Your task to perform on an android device: uninstall "Google Photos" Image 0: 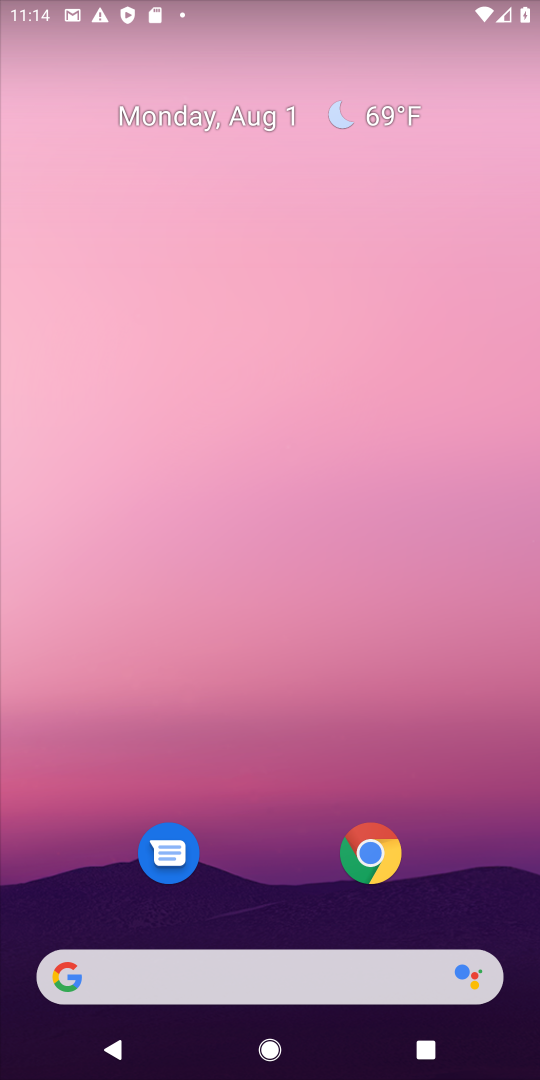
Step 0: press home button
Your task to perform on an android device: uninstall "Google Photos" Image 1: 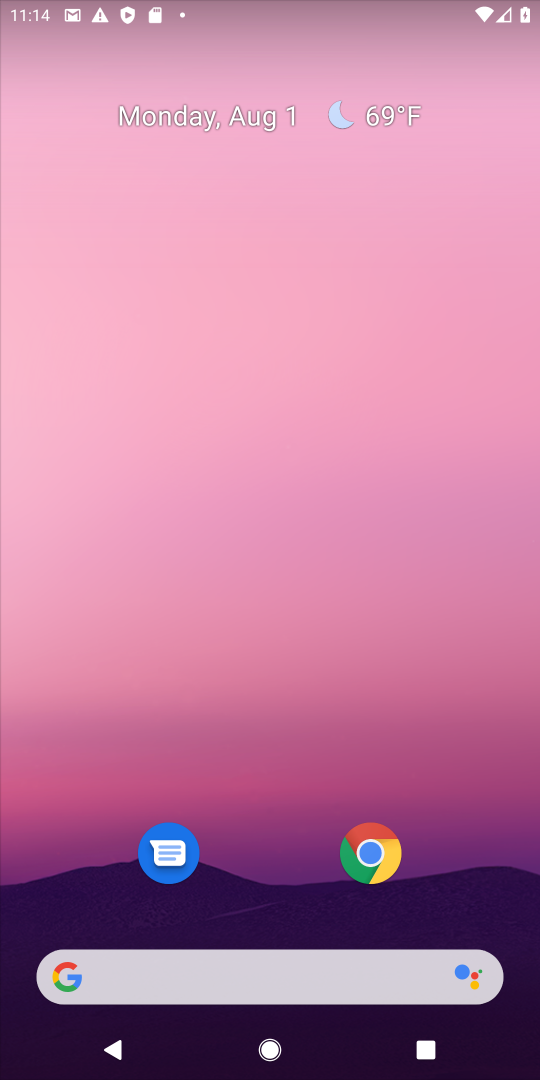
Step 1: drag from (365, 719) to (405, 76)
Your task to perform on an android device: uninstall "Google Photos" Image 2: 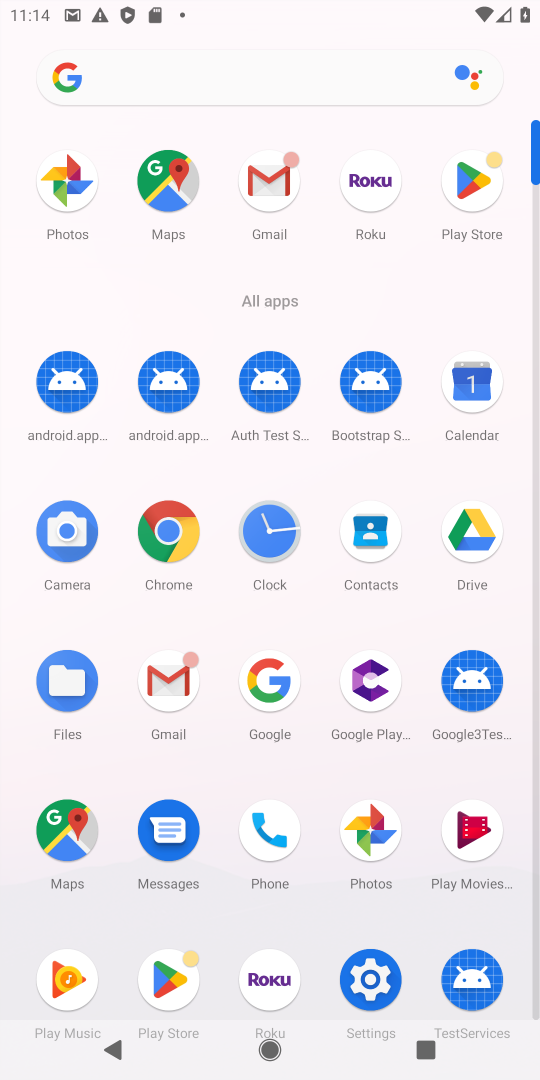
Step 2: click (456, 182)
Your task to perform on an android device: uninstall "Google Photos" Image 3: 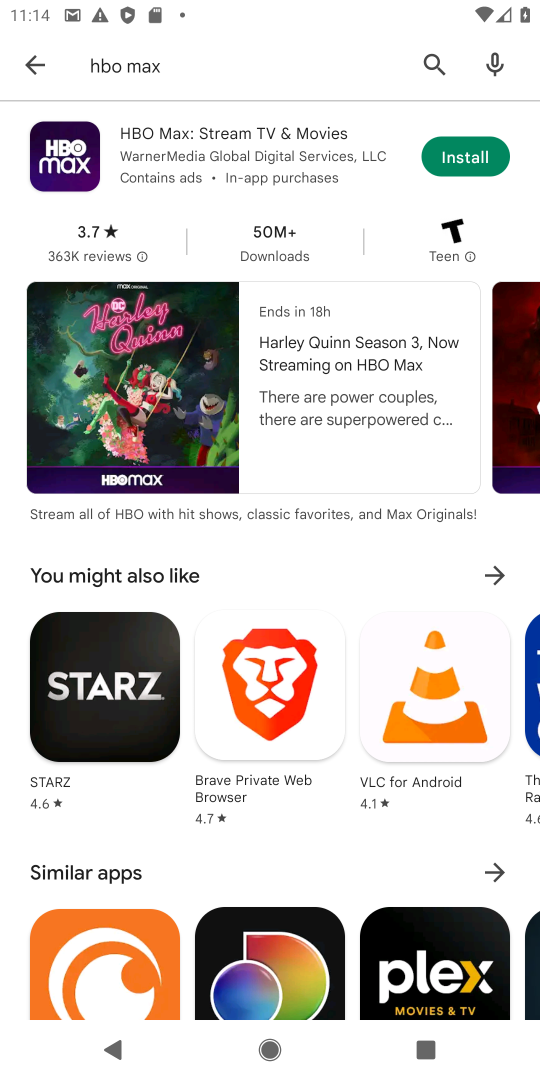
Step 3: click (417, 58)
Your task to perform on an android device: uninstall "Google Photos" Image 4: 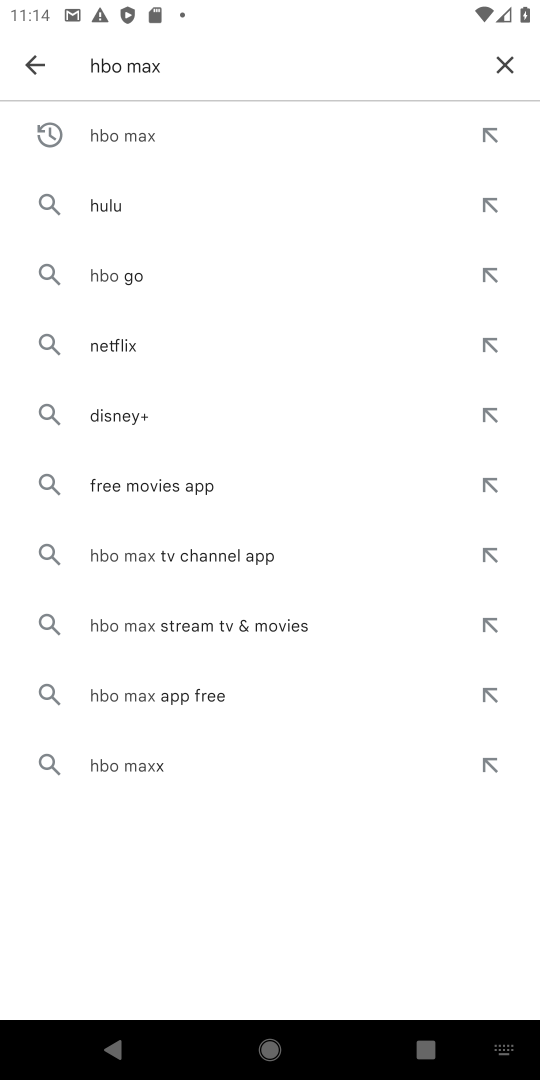
Step 4: click (490, 68)
Your task to perform on an android device: uninstall "Google Photos" Image 5: 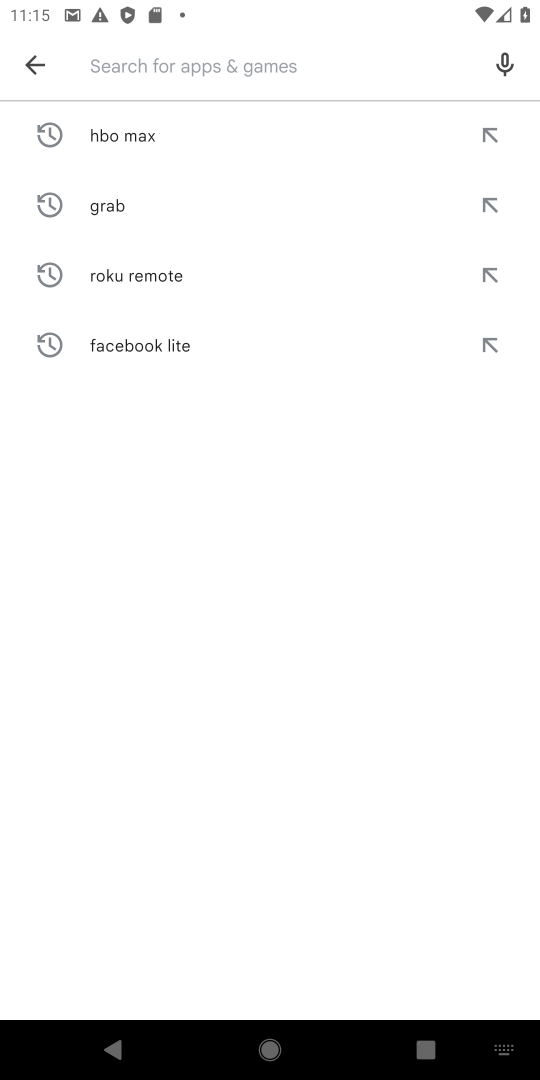
Step 5: type "Google Photos""
Your task to perform on an android device: uninstall "Google Photos" Image 6: 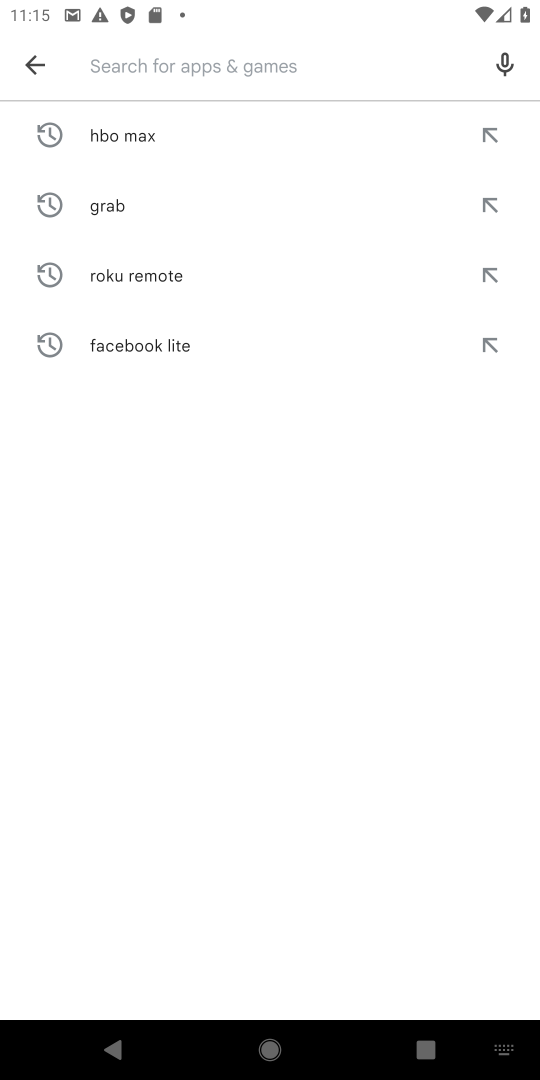
Step 6: type "google photos"
Your task to perform on an android device: uninstall "Google Photos" Image 7: 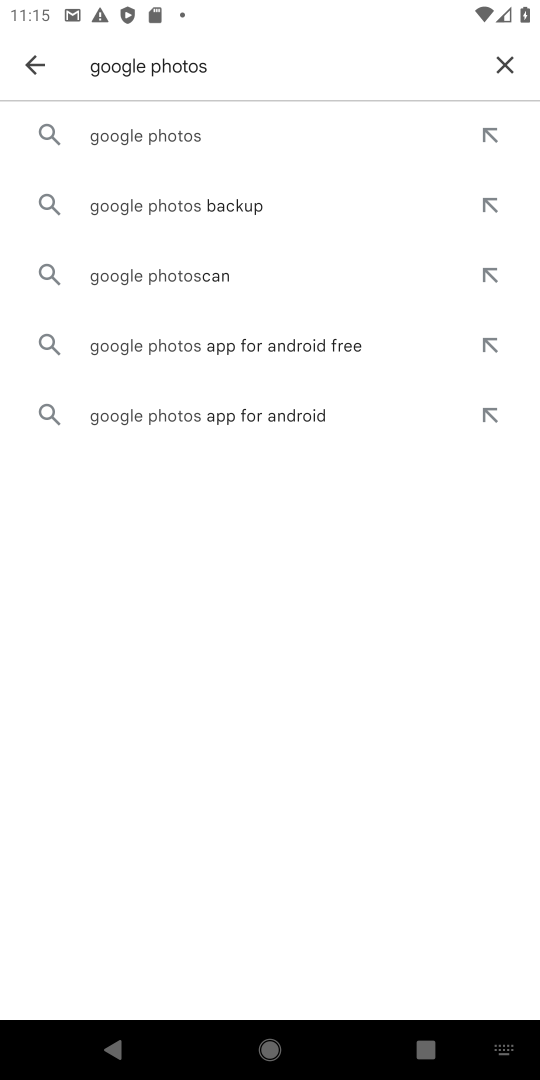
Step 7: click (123, 121)
Your task to perform on an android device: uninstall "Google Photos" Image 8: 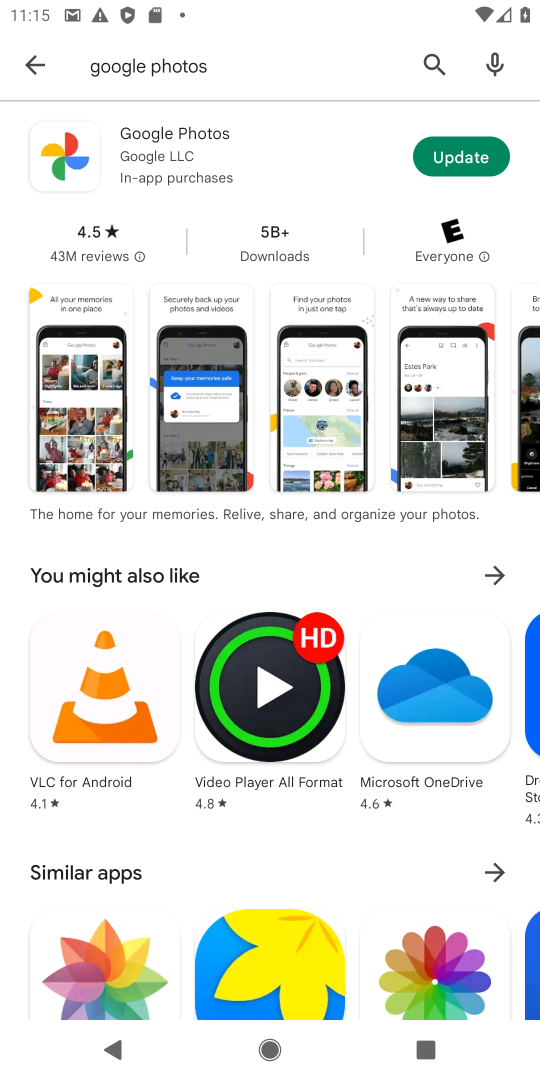
Step 8: click (196, 120)
Your task to perform on an android device: uninstall "Google Photos" Image 9: 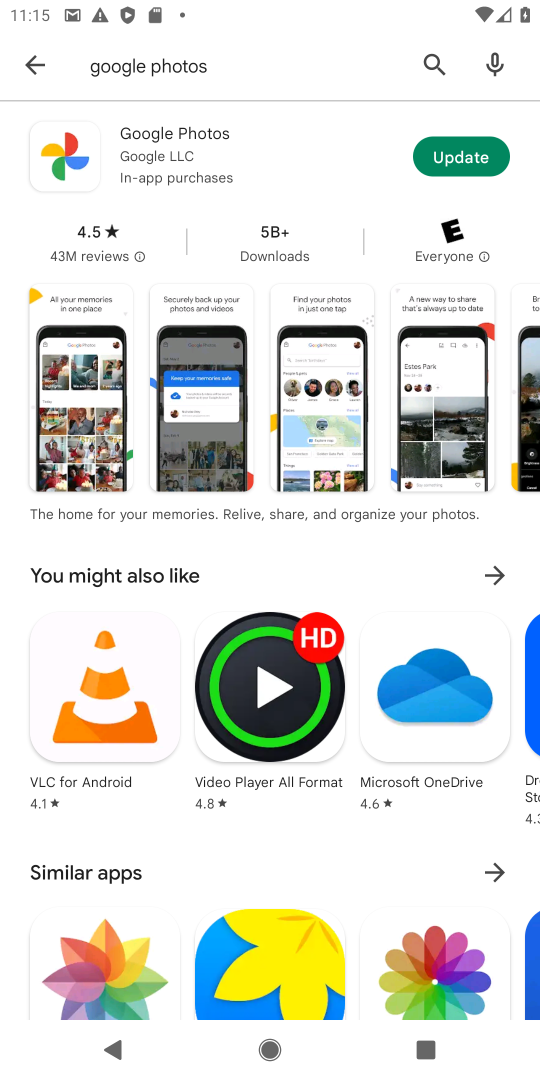
Step 9: click (196, 120)
Your task to perform on an android device: uninstall "Google Photos" Image 10: 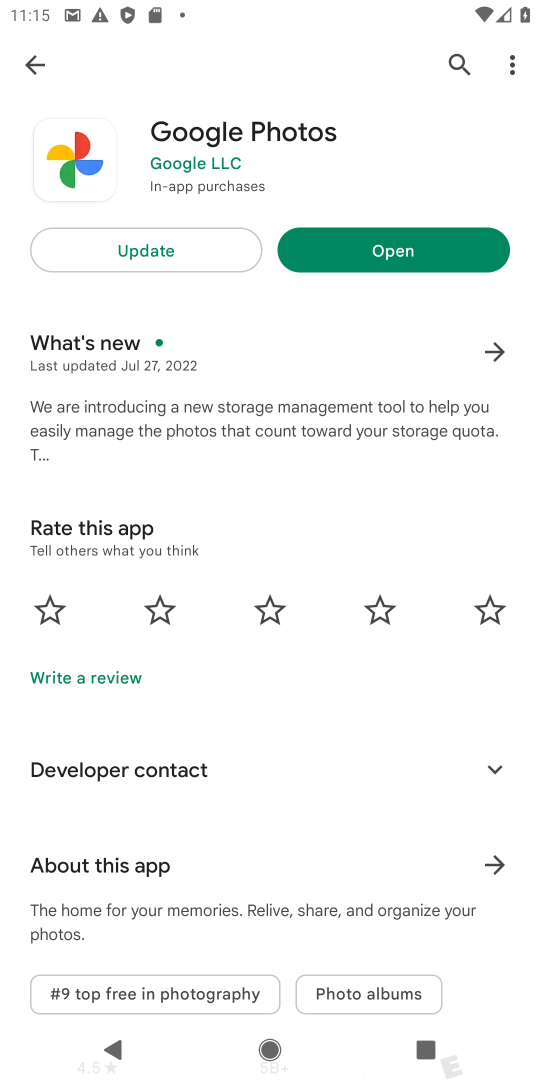
Step 10: task complete